Your task to perform on an android device: star an email in the gmail app Image 0: 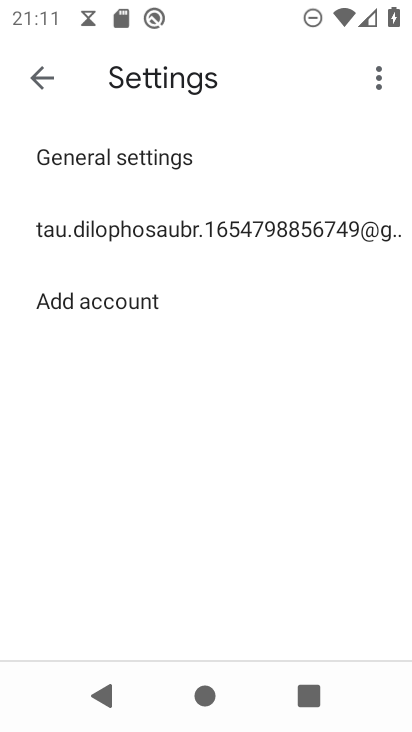
Step 0: click (32, 75)
Your task to perform on an android device: star an email in the gmail app Image 1: 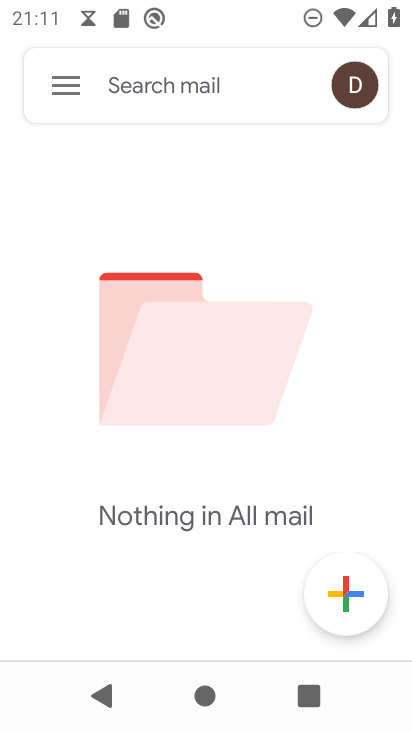
Step 1: task complete